Your task to perform on an android device: Open Google Image 0: 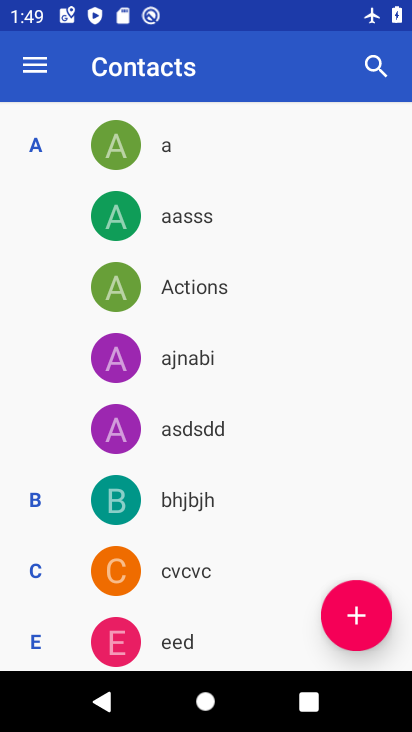
Step 0: press home button
Your task to perform on an android device: Open Google Image 1: 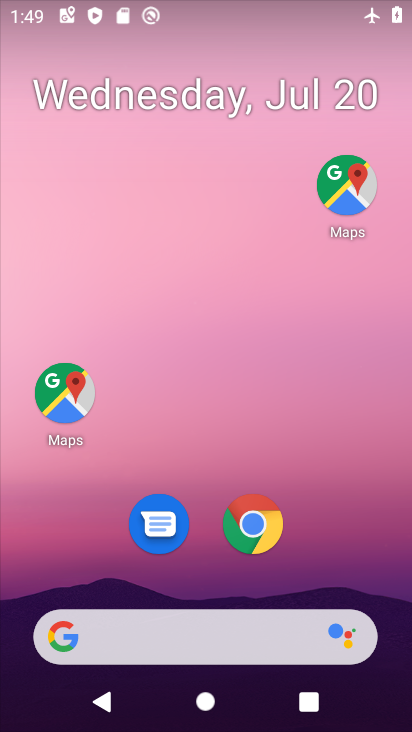
Step 1: drag from (191, 440) to (281, 13)
Your task to perform on an android device: Open Google Image 2: 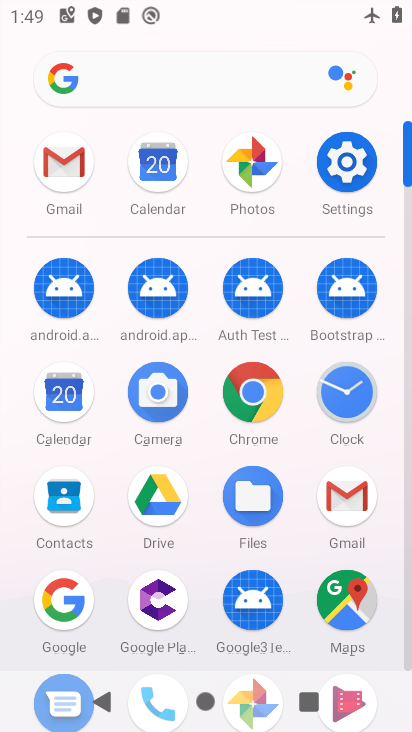
Step 2: click (65, 604)
Your task to perform on an android device: Open Google Image 3: 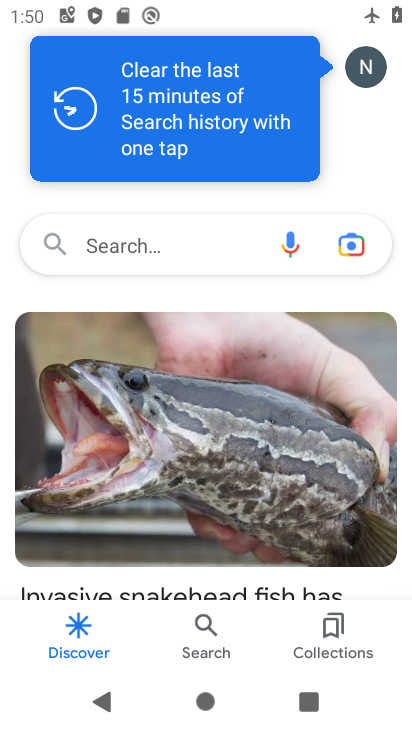
Step 3: task complete